Your task to perform on an android device: uninstall "Life360: Find Family & Friends" Image 0: 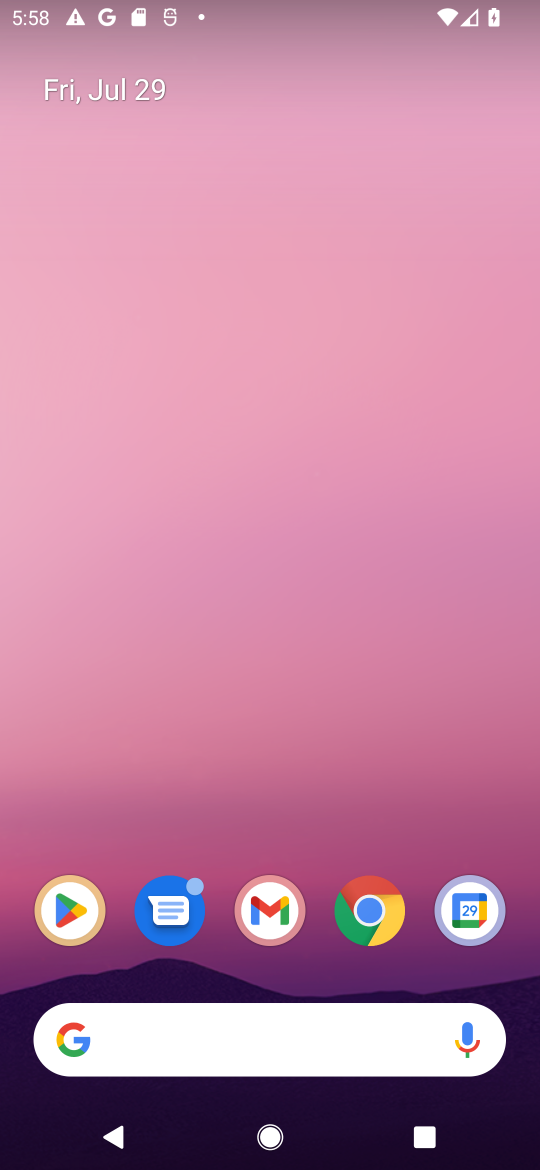
Step 0: click (285, 385)
Your task to perform on an android device: uninstall "Life360: Find Family & Friends" Image 1: 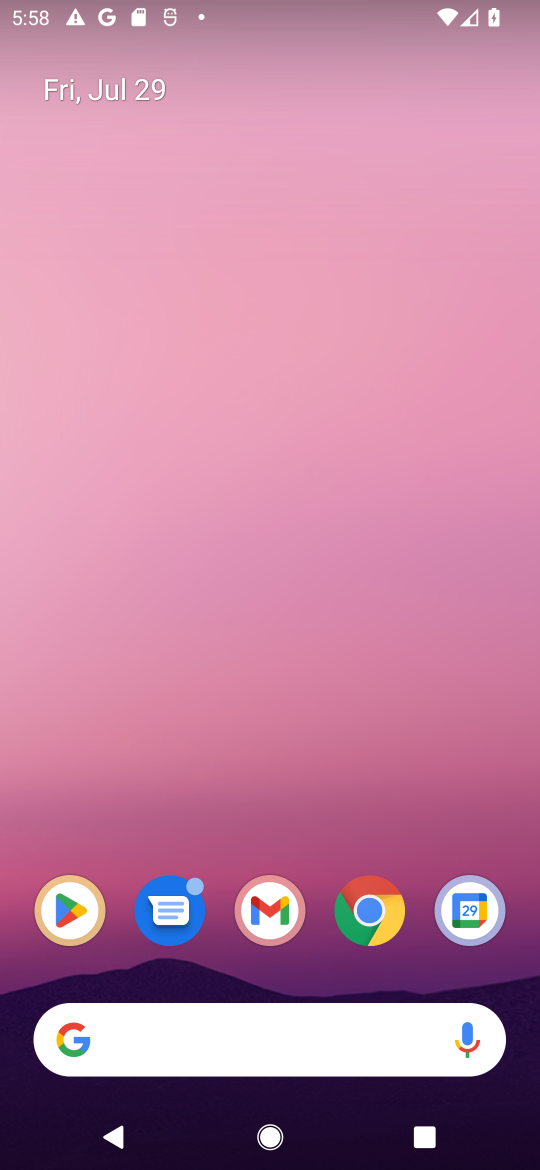
Step 1: drag from (259, 829) to (243, 456)
Your task to perform on an android device: uninstall "Life360: Find Family & Friends" Image 2: 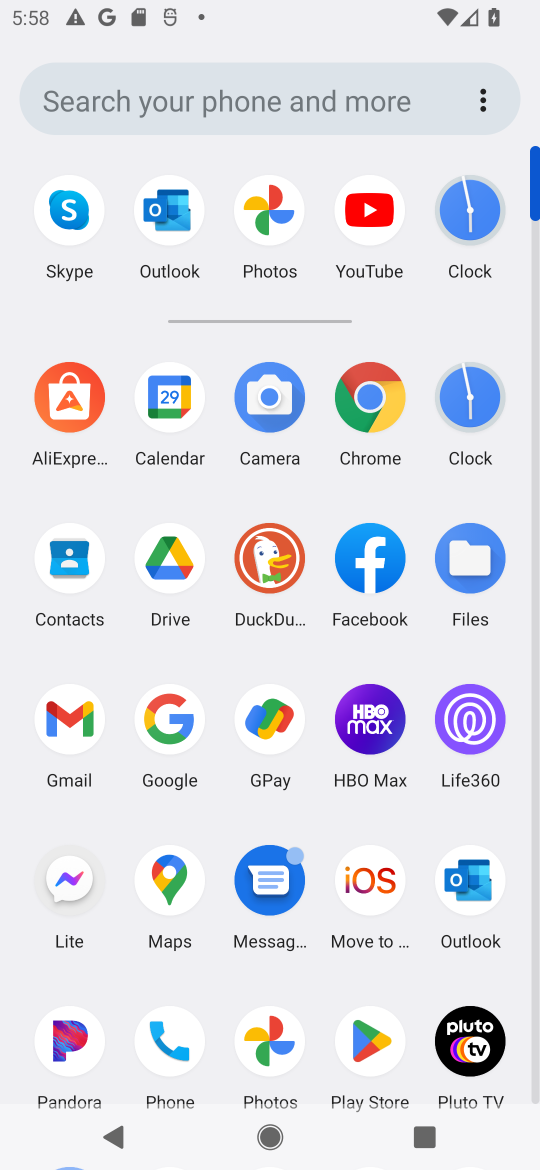
Step 2: click (357, 1053)
Your task to perform on an android device: uninstall "Life360: Find Family & Friends" Image 3: 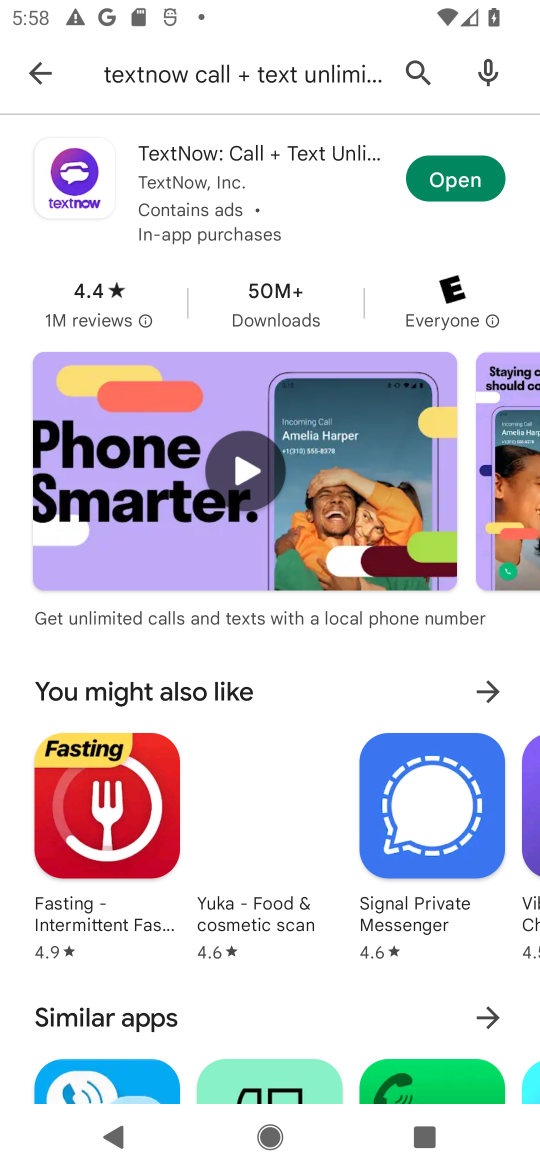
Step 3: click (37, 74)
Your task to perform on an android device: uninstall "Life360: Find Family & Friends" Image 4: 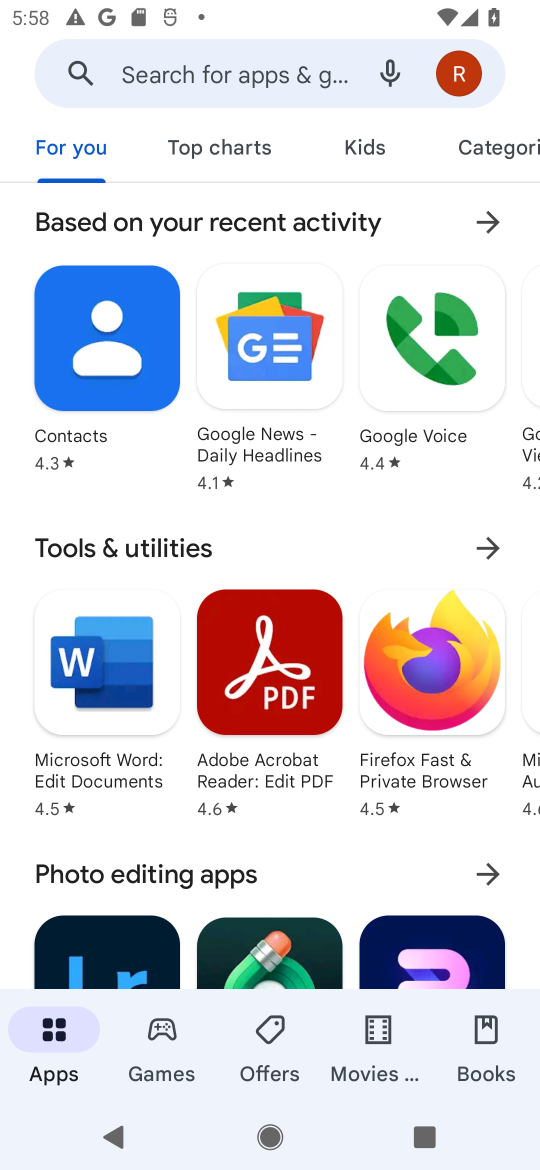
Step 4: click (213, 82)
Your task to perform on an android device: uninstall "Life360: Find Family & Friends" Image 5: 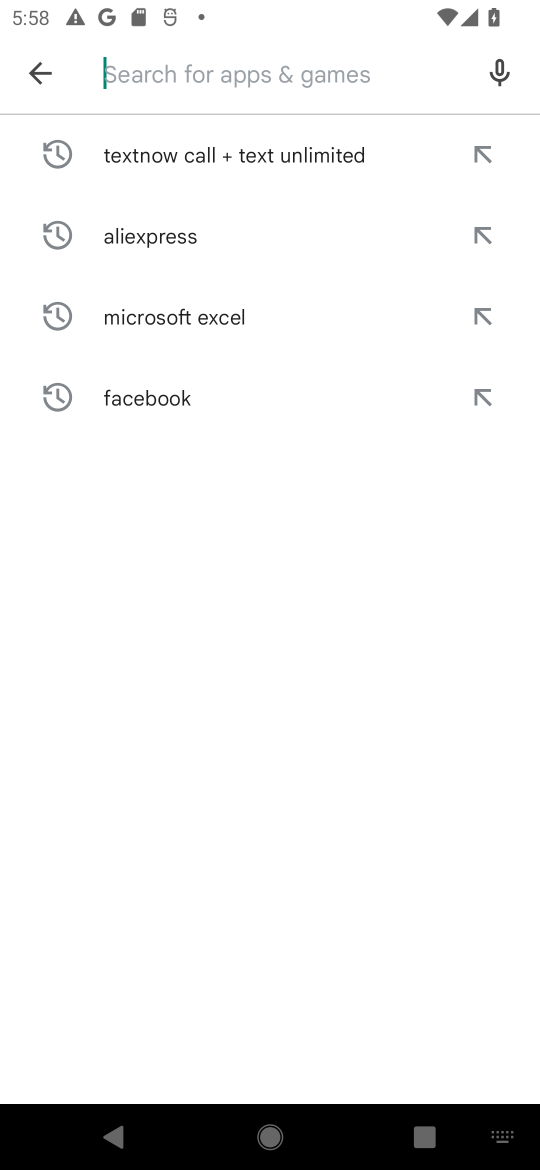
Step 5: type "Life360: Find Family & Friends"
Your task to perform on an android device: uninstall "Life360: Find Family & Friends" Image 6: 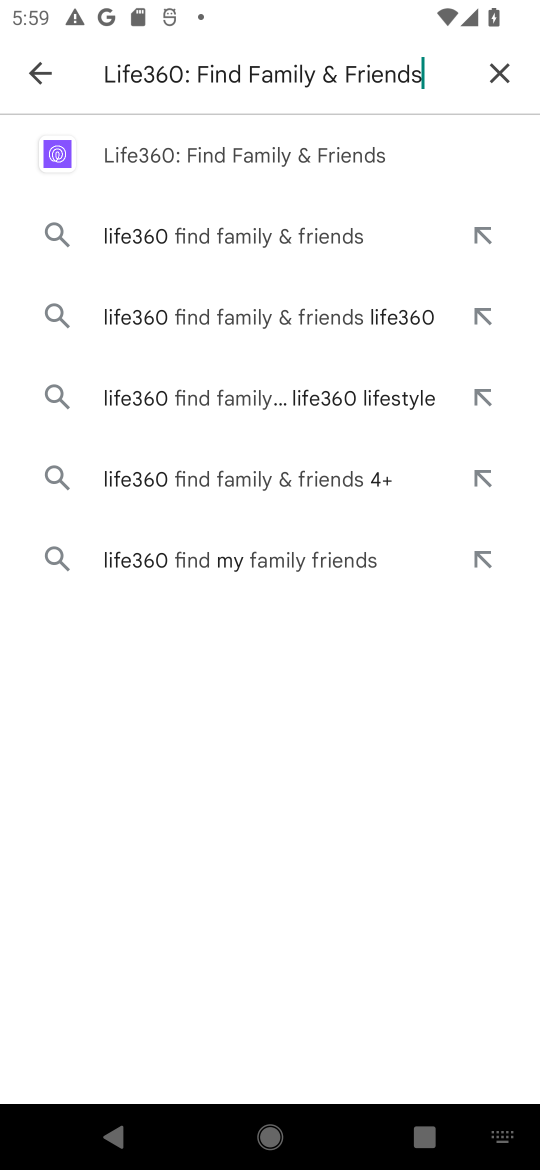
Step 6: click (302, 158)
Your task to perform on an android device: uninstall "Life360: Find Family & Friends" Image 7: 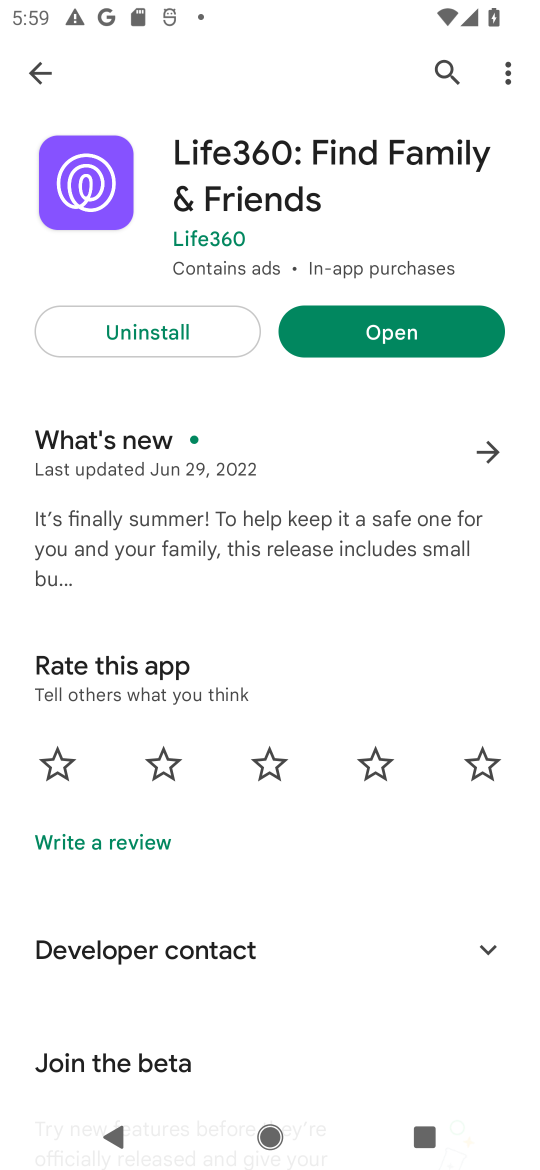
Step 7: click (147, 334)
Your task to perform on an android device: uninstall "Life360: Find Family & Friends" Image 8: 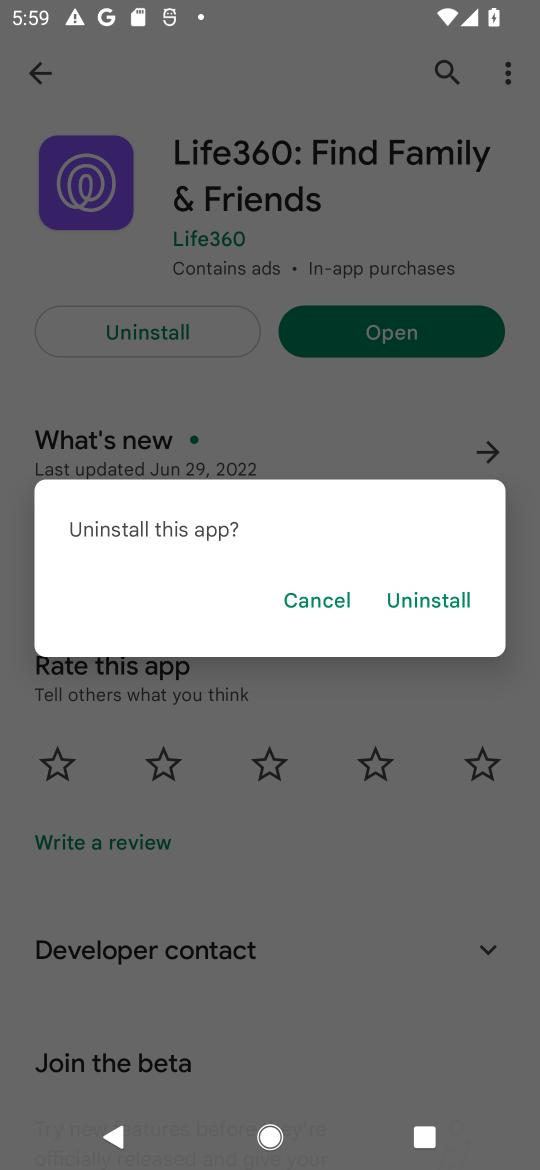
Step 8: click (462, 600)
Your task to perform on an android device: uninstall "Life360: Find Family & Friends" Image 9: 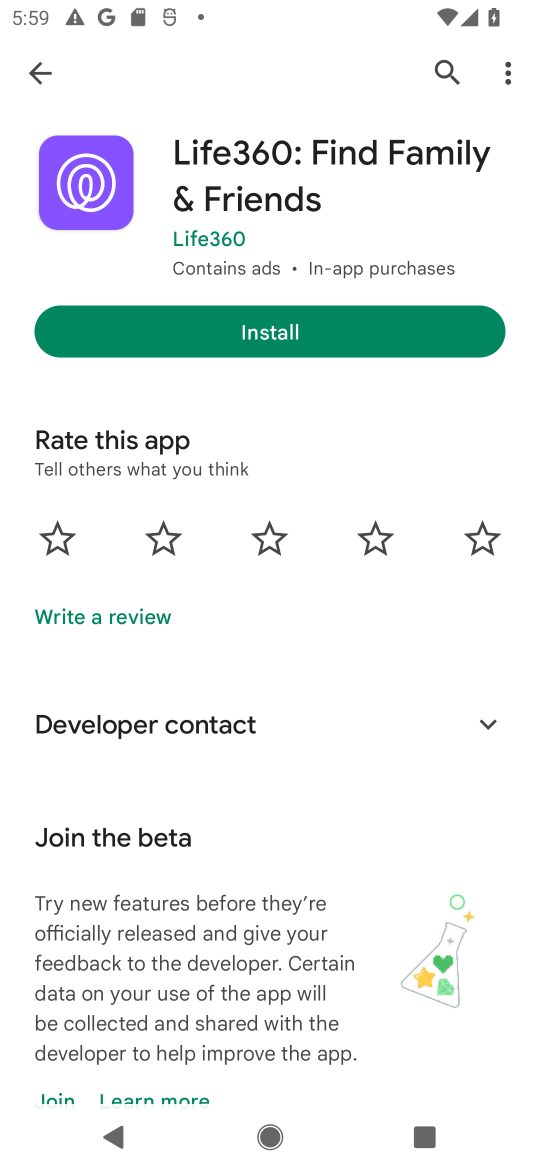
Step 9: task complete